Your task to perform on an android device: Go to wifi settings Image 0: 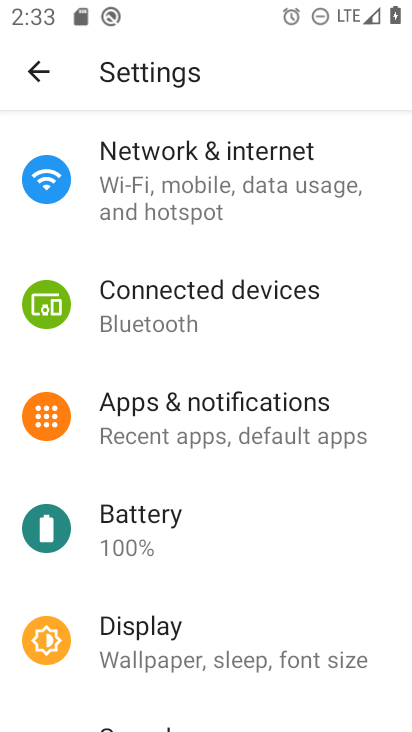
Step 0: click (236, 217)
Your task to perform on an android device: Go to wifi settings Image 1: 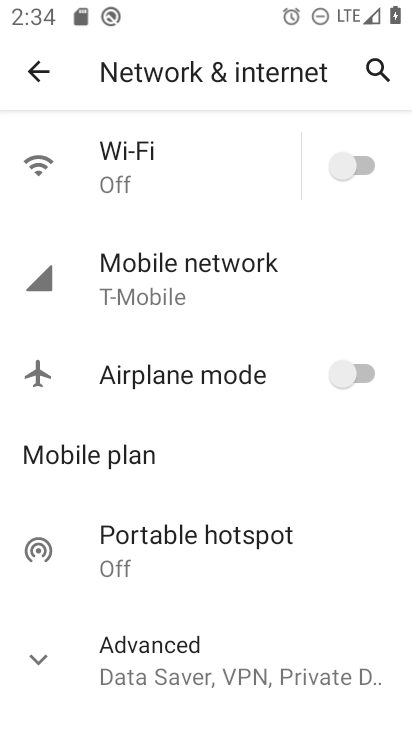
Step 1: click (144, 162)
Your task to perform on an android device: Go to wifi settings Image 2: 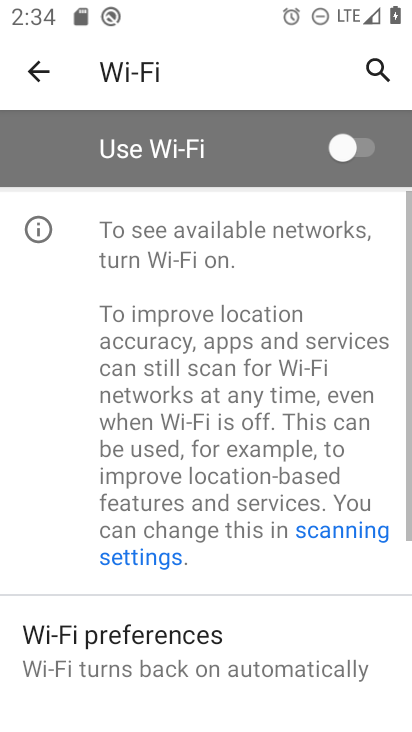
Step 2: task complete